Your task to perform on an android device: turn off location history Image 0: 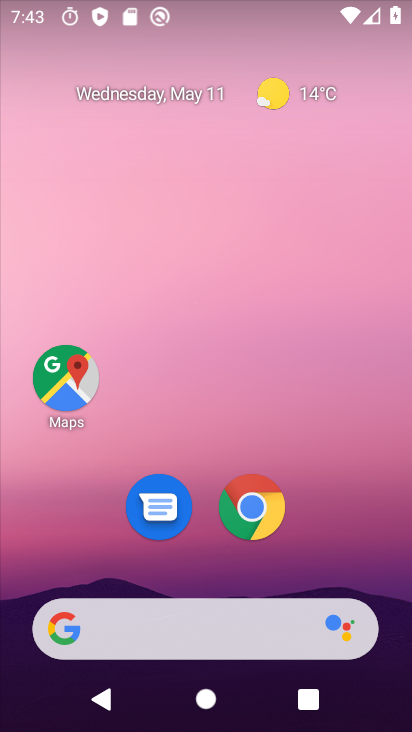
Step 0: drag from (346, 517) to (410, 119)
Your task to perform on an android device: turn off location history Image 1: 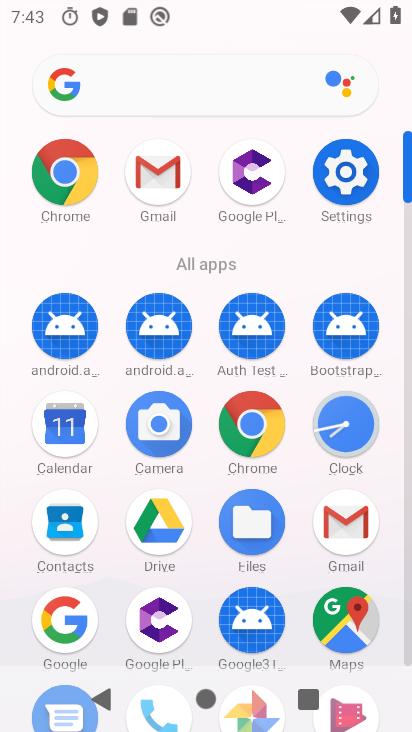
Step 1: click (359, 184)
Your task to perform on an android device: turn off location history Image 2: 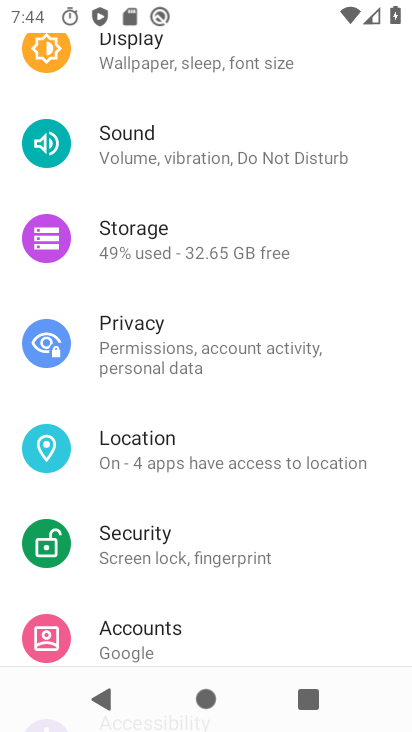
Step 2: click (199, 458)
Your task to perform on an android device: turn off location history Image 3: 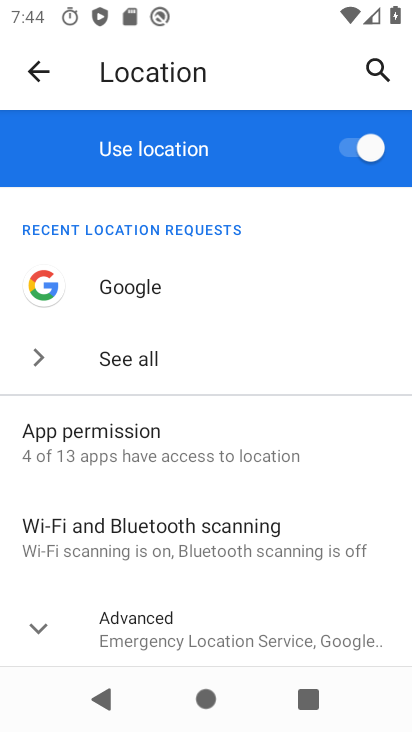
Step 3: drag from (268, 580) to (253, 181)
Your task to perform on an android device: turn off location history Image 4: 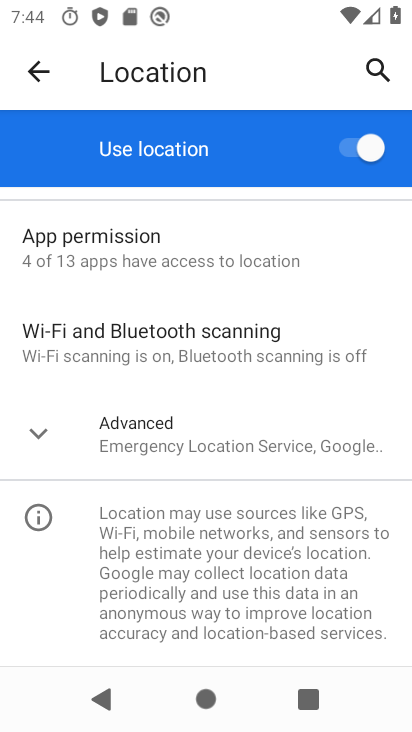
Step 4: click (157, 452)
Your task to perform on an android device: turn off location history Image 5: 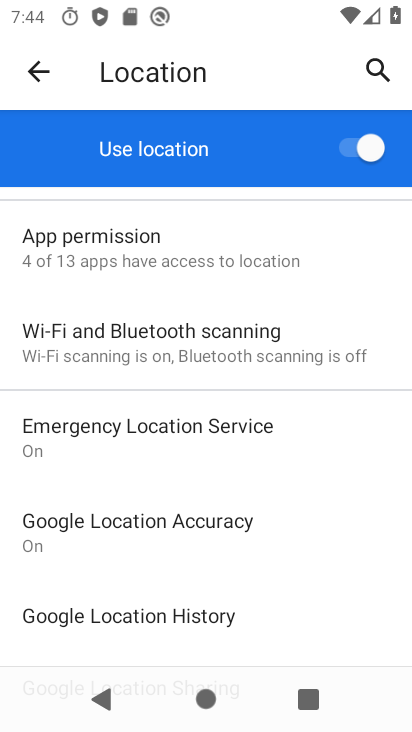
Step 5: drag from (228, 558) to (234, 374)
Your task to perform on an android device: turn off location history Image 6: 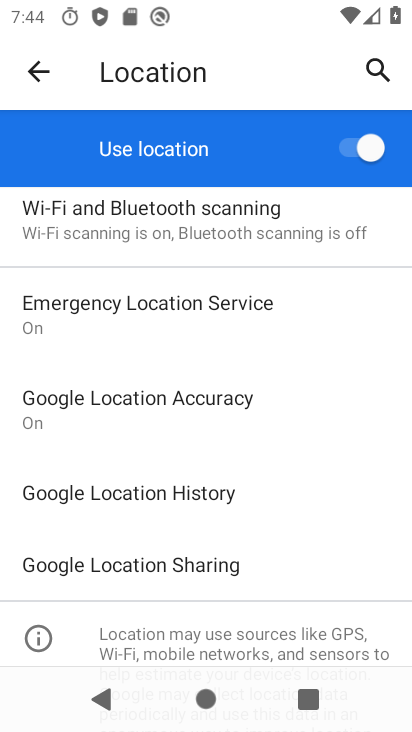
Step 6: click (178, 500)
Your task to perform on an android device: turn off location history Image 7: 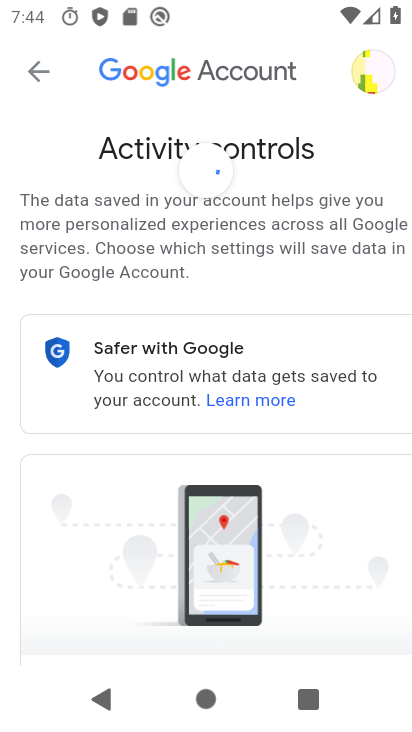
Step 7: drag from (351, 549) to (302, 195)
Your task to perform on an android device: turn off location history Image 8: 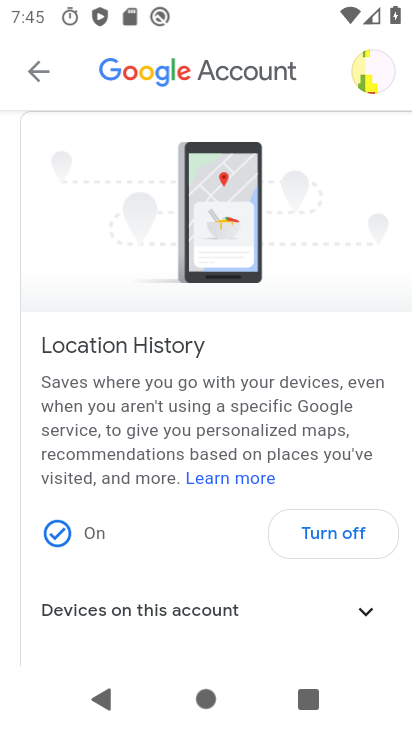
Step 8: drag from (321, 565) to (299, 205)
Your task to perform on an android device: turn off location history Image 9: 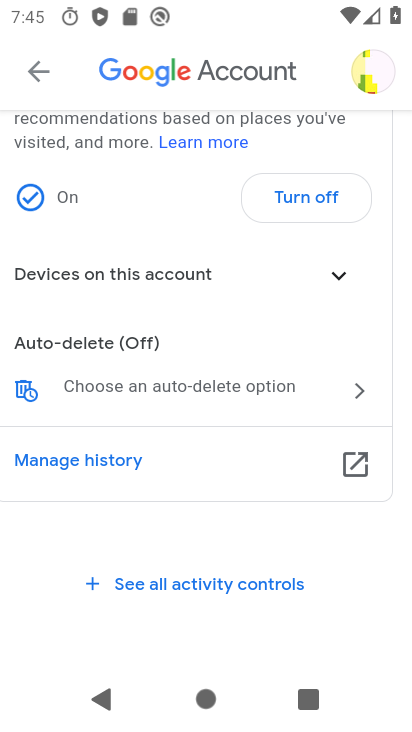
Step 9: click (304, 204)
Your task to perform on an android device: turn off location history Image 10: 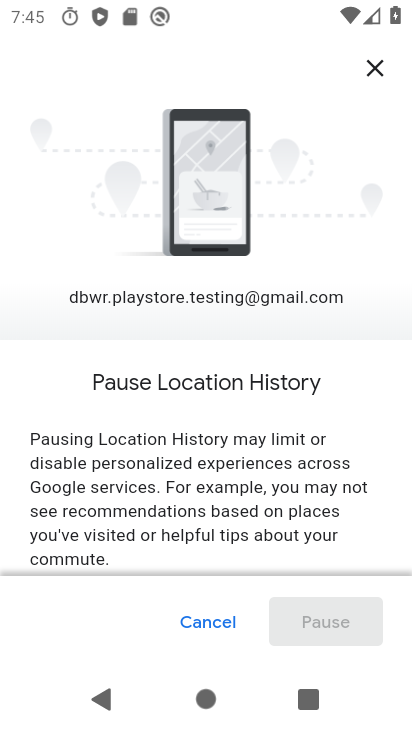
Step 10: drag from (344, 530) to (309, 92)
Your task to perform on an android device: turn off location history Image 11: 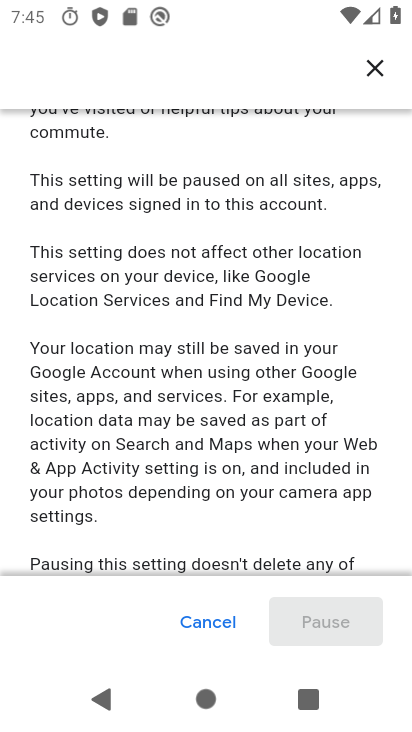
Step 11: drag from (327, 507) to (349, 71)
Your task to perform on an android device: turn off location history Image 12: 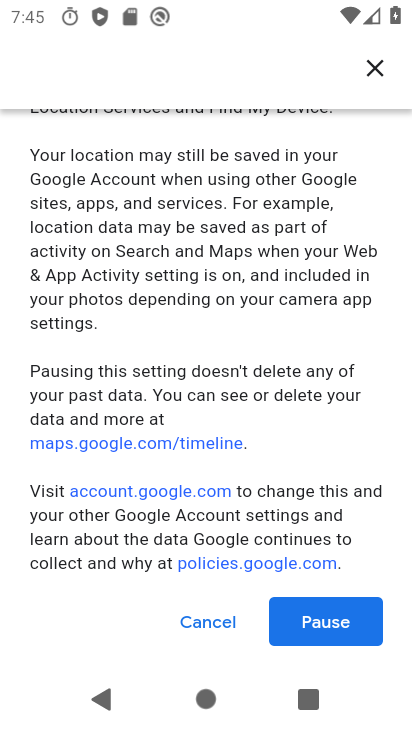
Step 12: drag from (333, 513) to (366, 89)
Your task to perform on an android device: turn off location history Image 13: 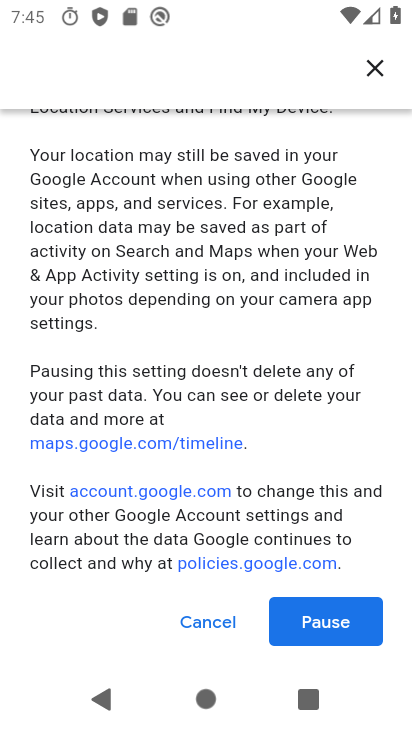
Step 13: click (328, 630)
Your task to perform on an android device: turn off location history Image 14: 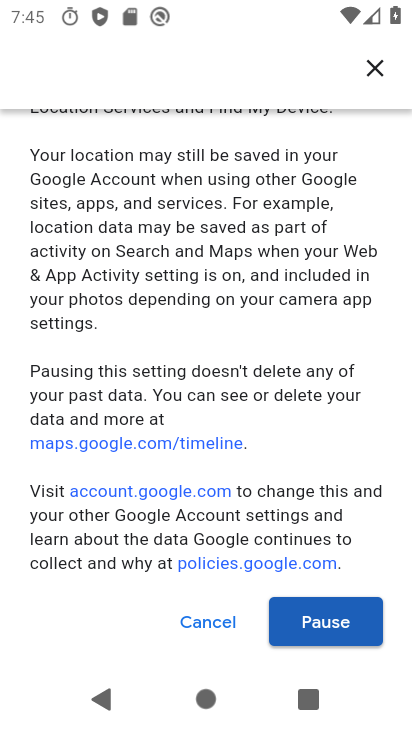
Step 14: click (328, 630)
Your task to perform on an android device: turn off location history Image 15: 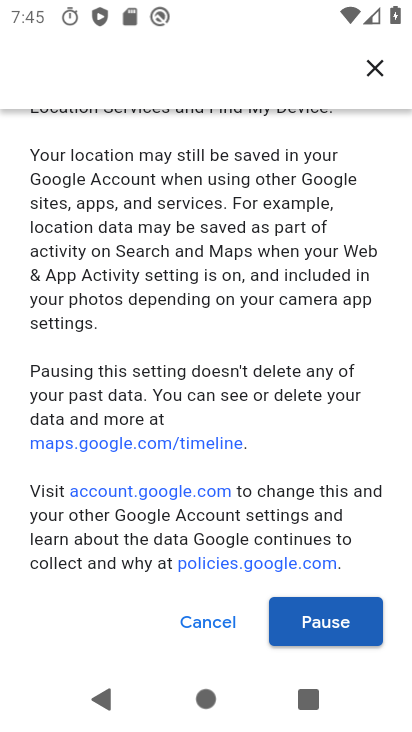
Step 15: click (328, 630)
Your task to perform on an android device: turn off location history Image 16: 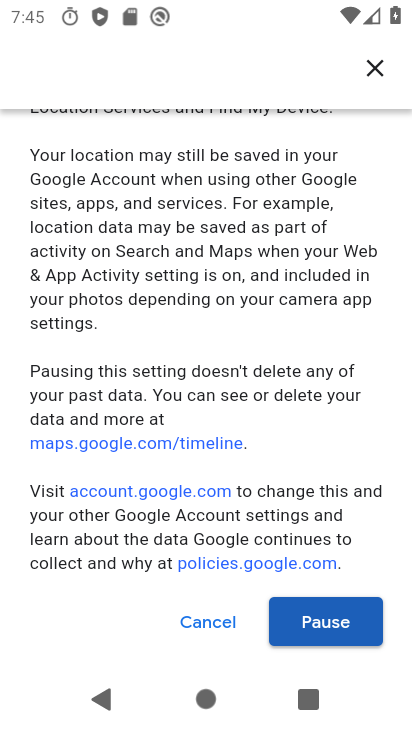
Step 16: drag from (299, 565) to (304, 305)
Your task to perform on an android device: turn off location history Image 17: 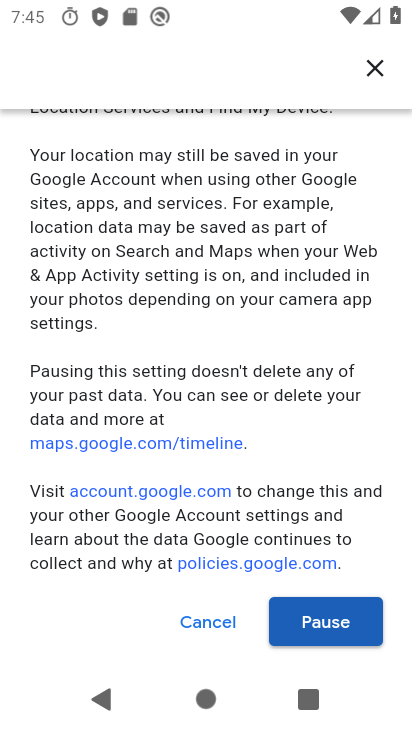
Step 17: click (322, 613)
Your task to perform on an android device: turn off location history Image 18: 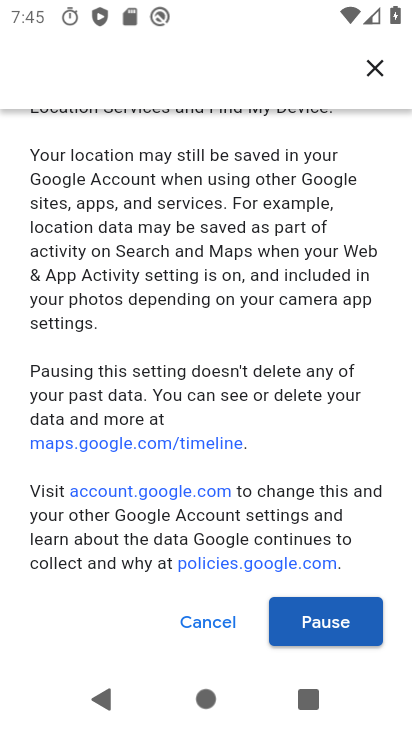
Step 18: click (323, 621)
Your task to perform on an android device: turn off location history Image 19: 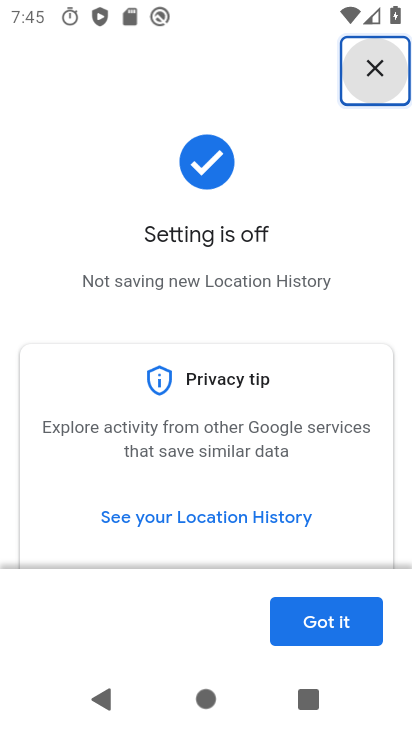
Step 19: click (321, 620)
Your task to perform on an android device: turn off location history Image 20: 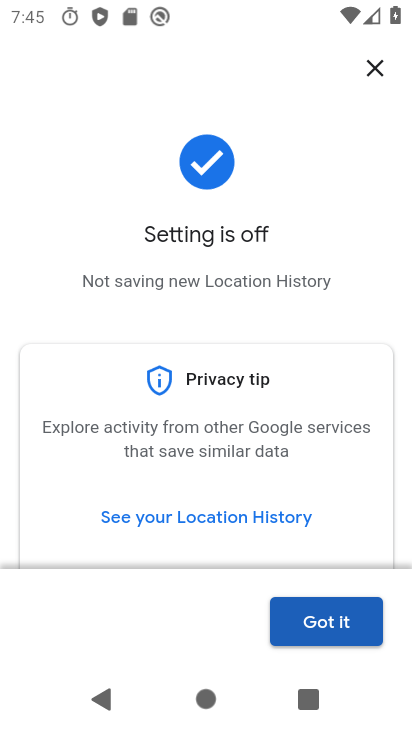
Step 20: click (321, 619)
Your task to perform on an android device: turn off location history Image 21: 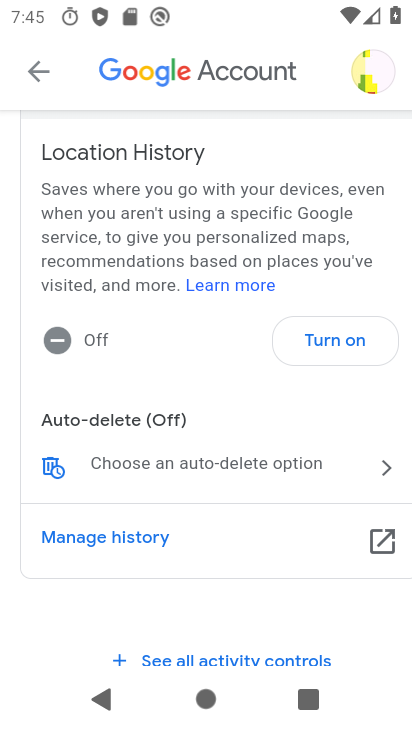
Step 21: task complete